Your task to perform on an android device: Add razer kraken to the cart on costco.com Image 0: 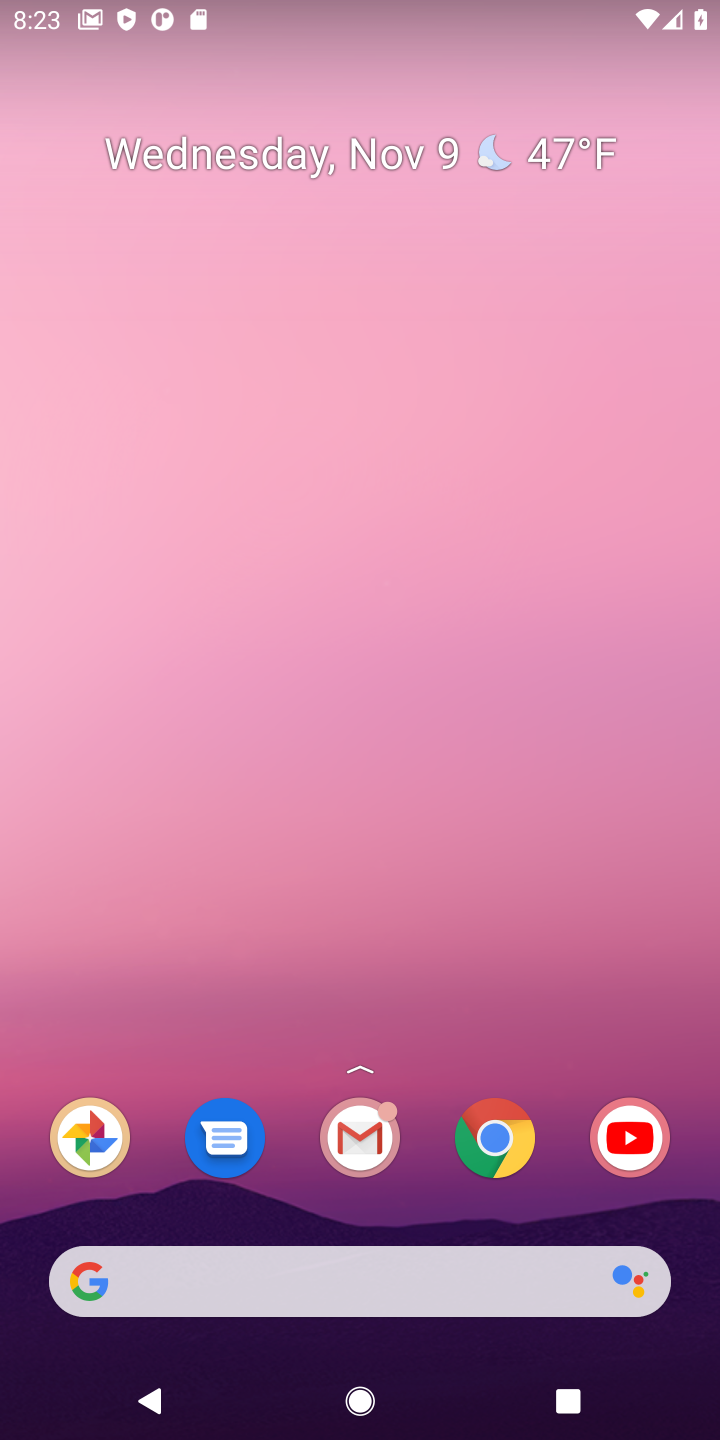
Step 0: drag from (447, 1200) to (316, 150)
Your task to perform on an android device: Add razer kraken to the cart on costco.com Image 1: 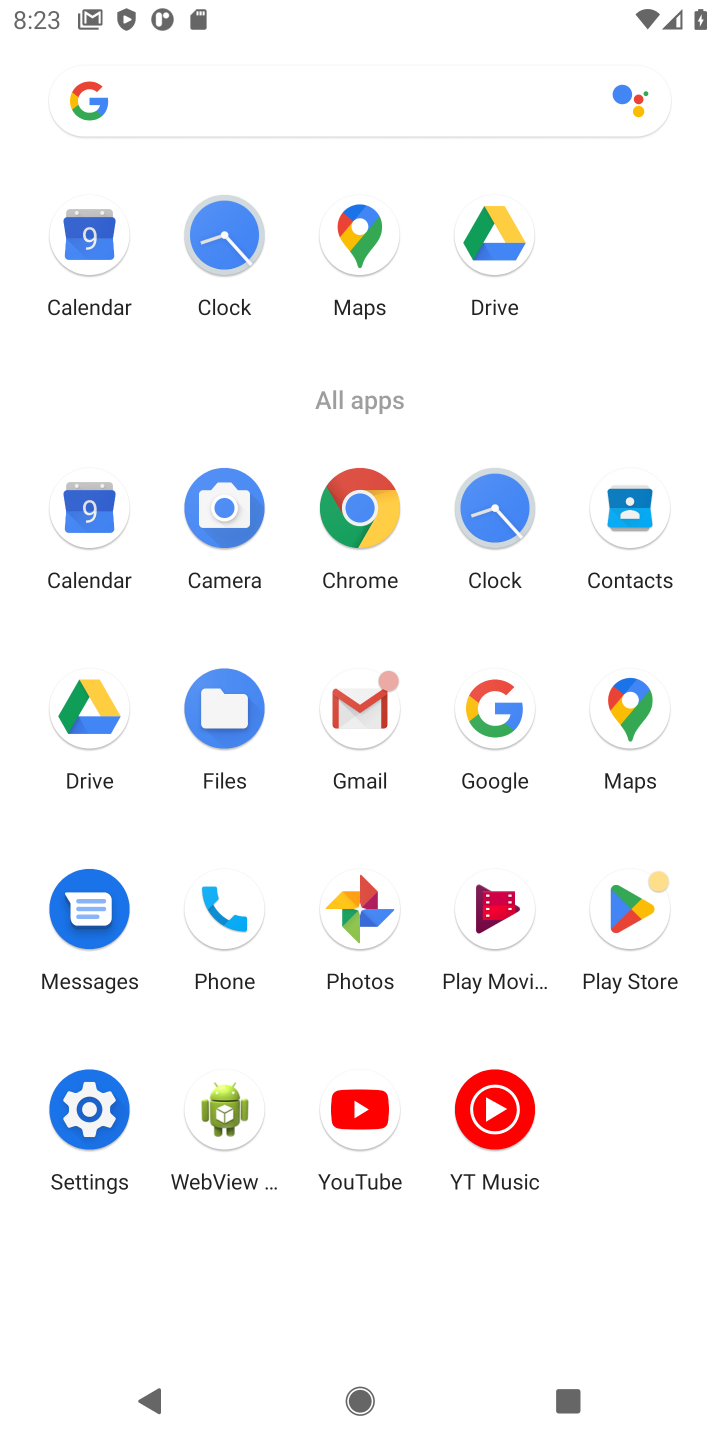
Step 1: click (357, 503)
Your task to perform on an android device: Add razer kraken to the cart on costco.com Image 2: 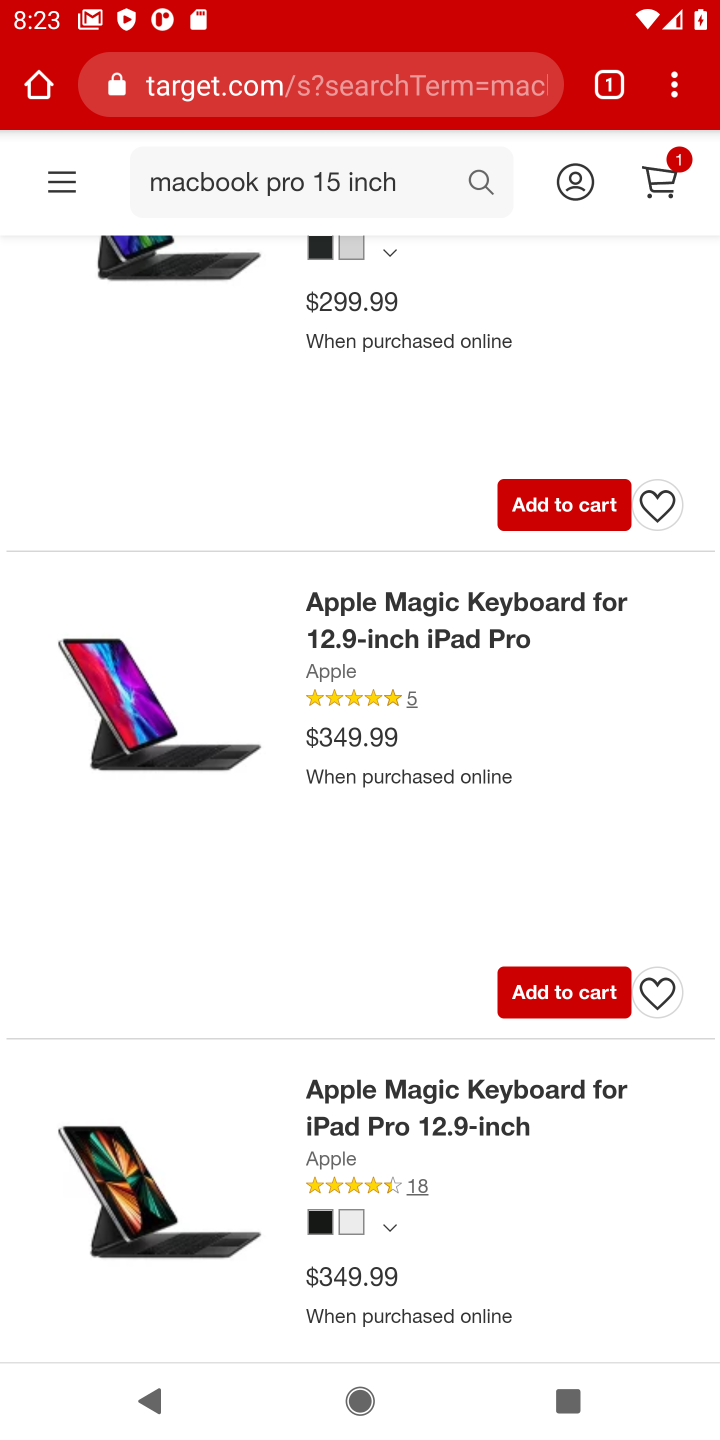
Step 2: click (325, 90)
Your task to perform on an android device: Add razer kraken to the cart on costco.com Image 3: 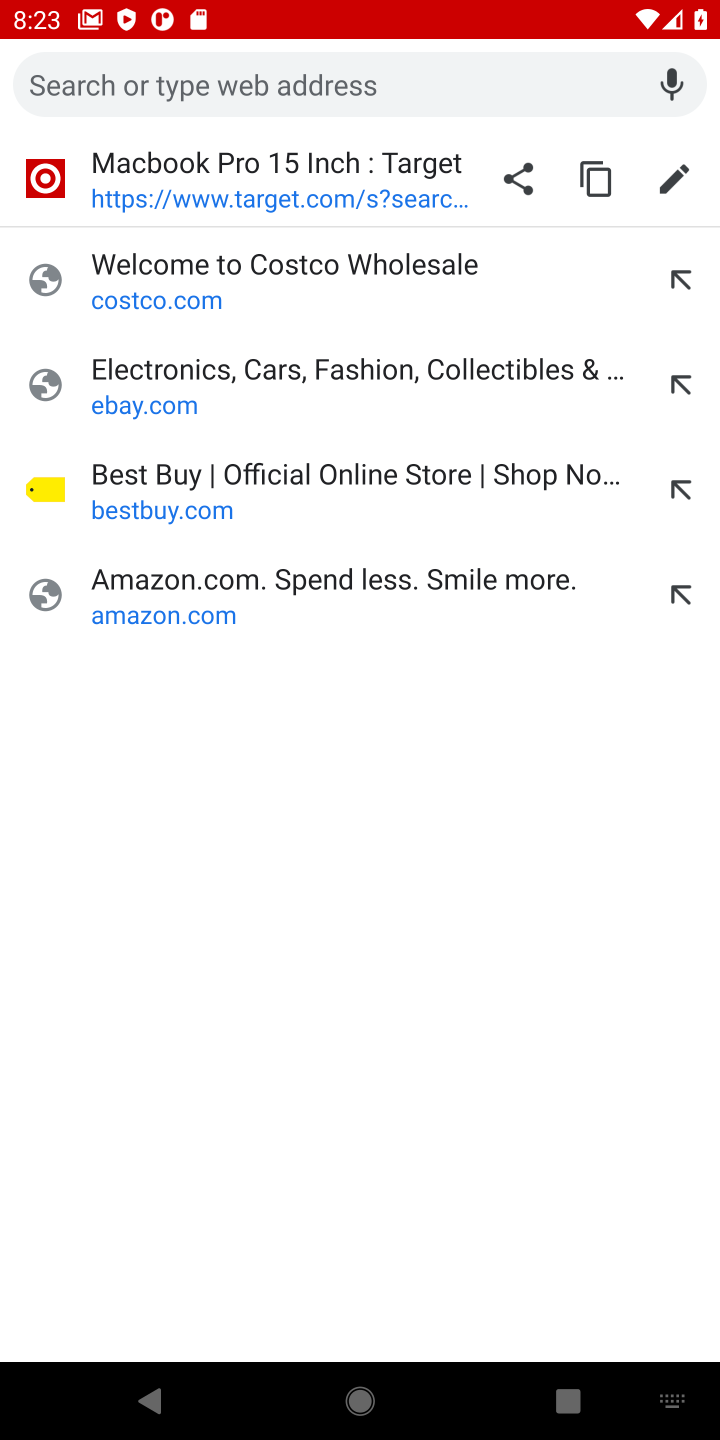
Step 3: type "costco.com"
Your task to perform on an android device: Add razer kraken to the cart on costco.com Image 4: 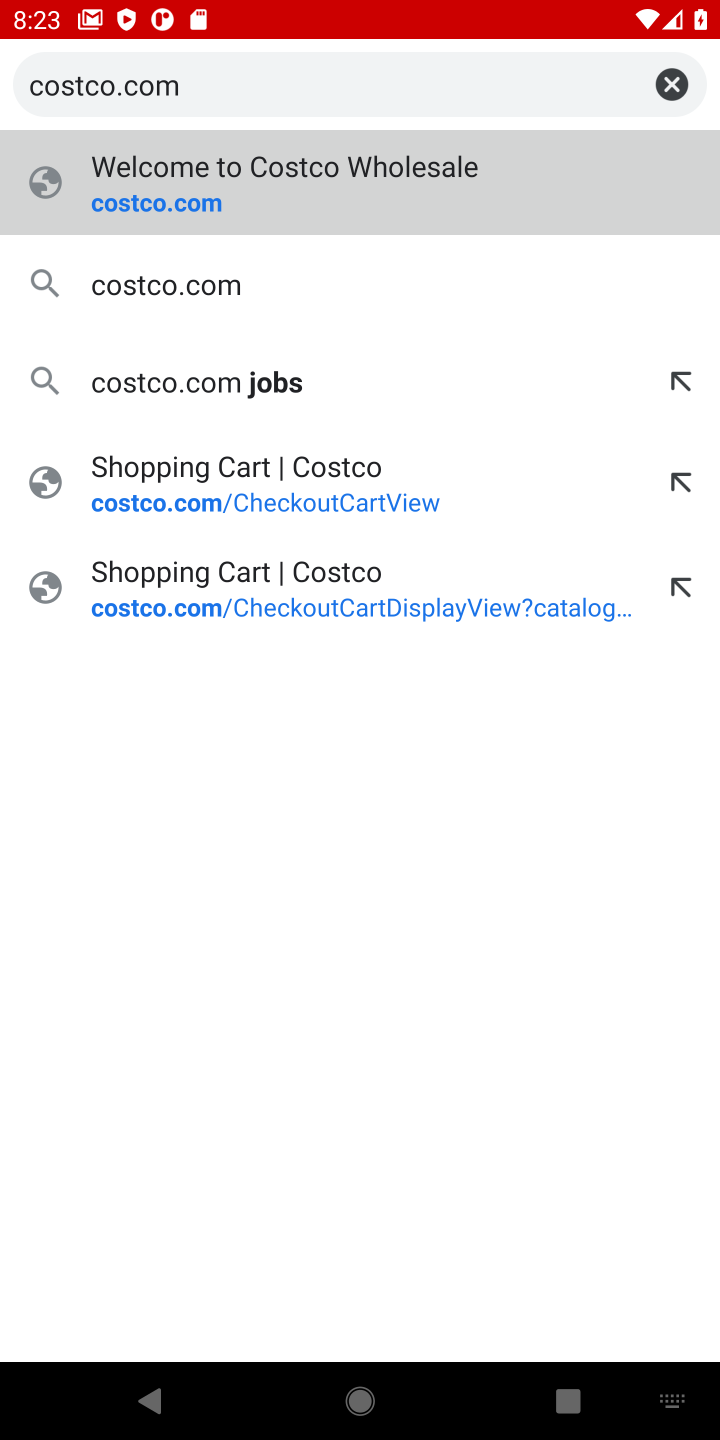
Step 4: press enter
Your task to perform on an android device: Add razer kraken to the cart on costco.com Image 5: 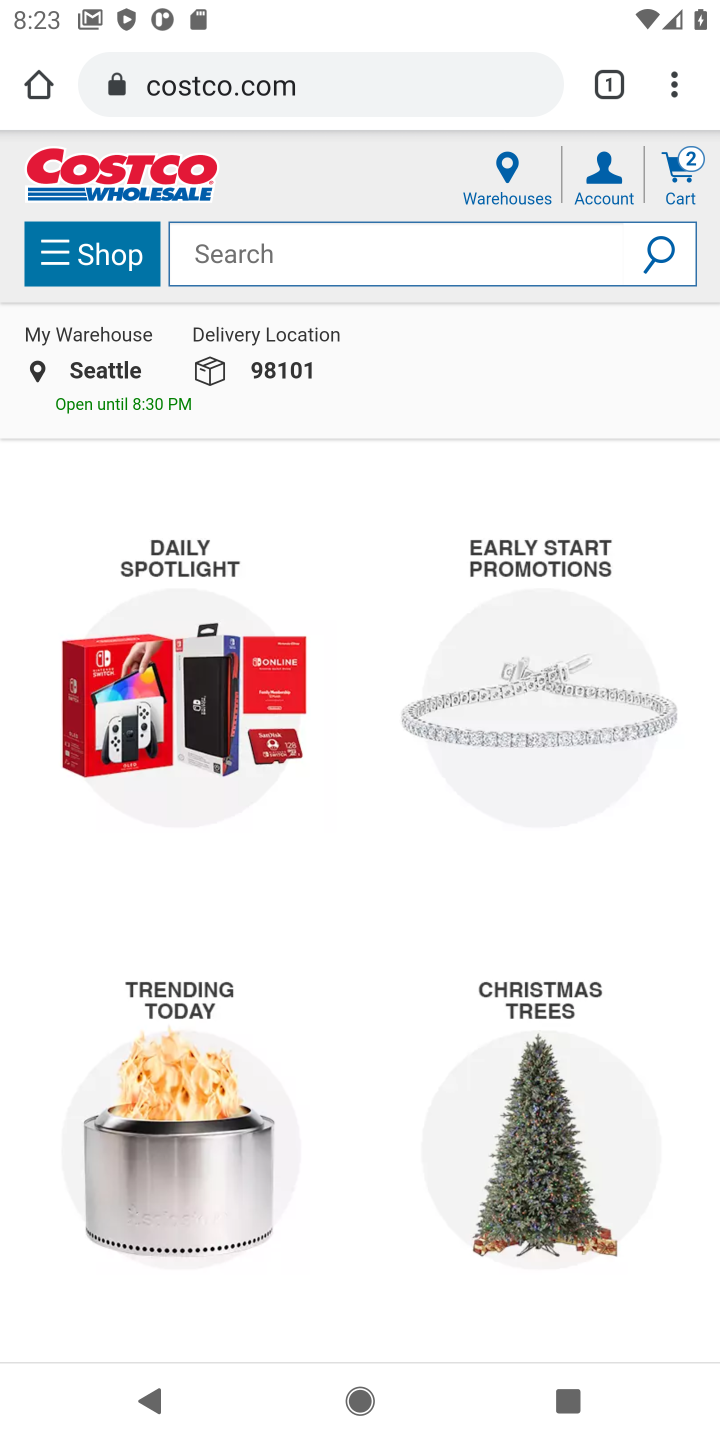
Step 5: click (226, 251)
Your task to perform on an android device: Add razer kraken to the cart on costco.com Image 6: 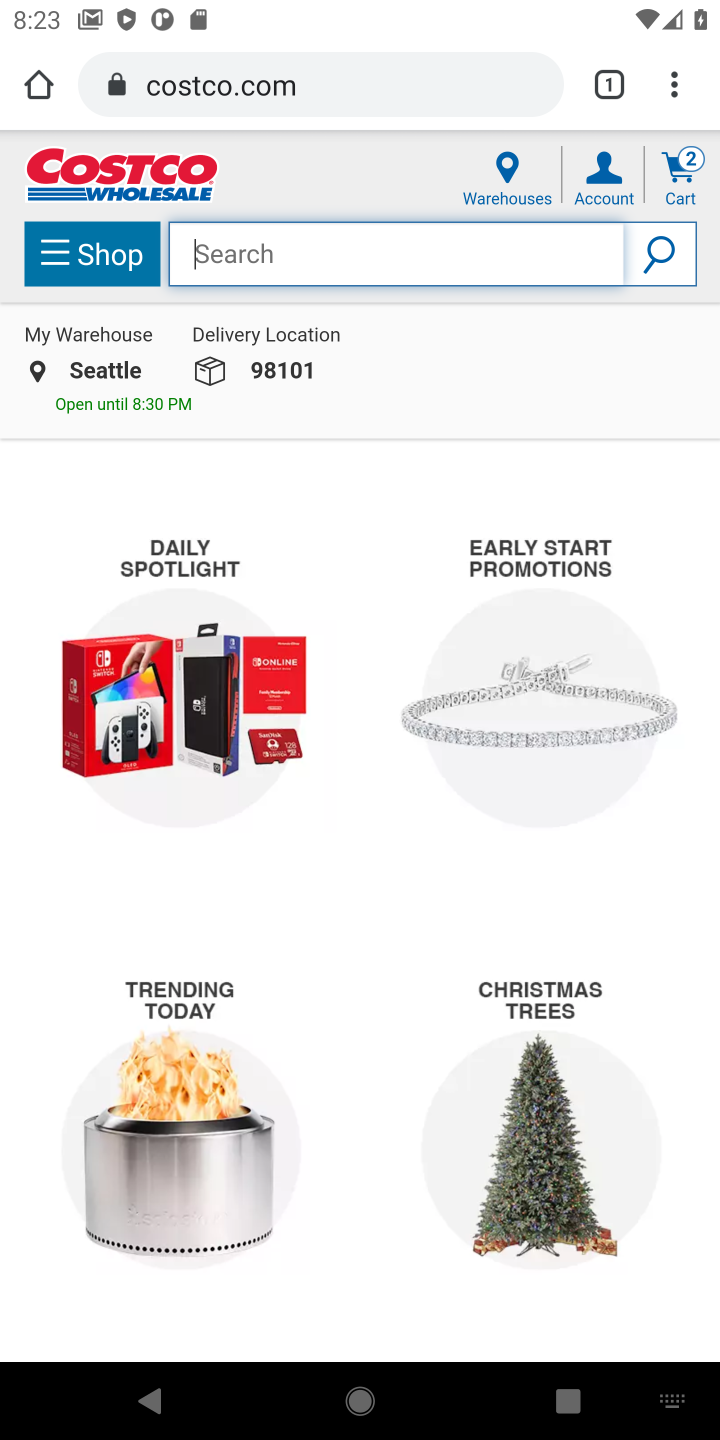
Step 6: type "razer kraken"
Your task to perform on an android device: Add razer kraken to the cart on costco.com Image 7: 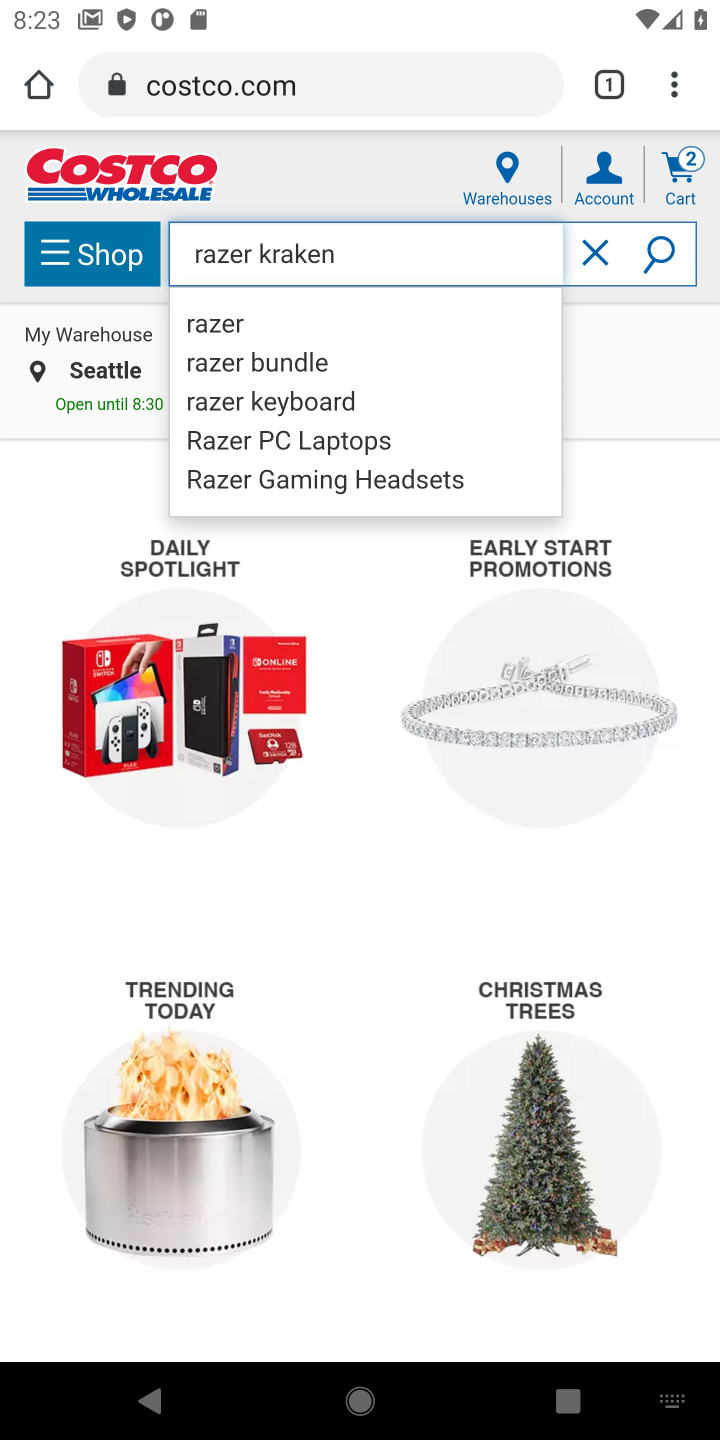
Step 7: press enter
Your task to perform on an android device: Add razer kraken to the cart on costco.com Image 8: 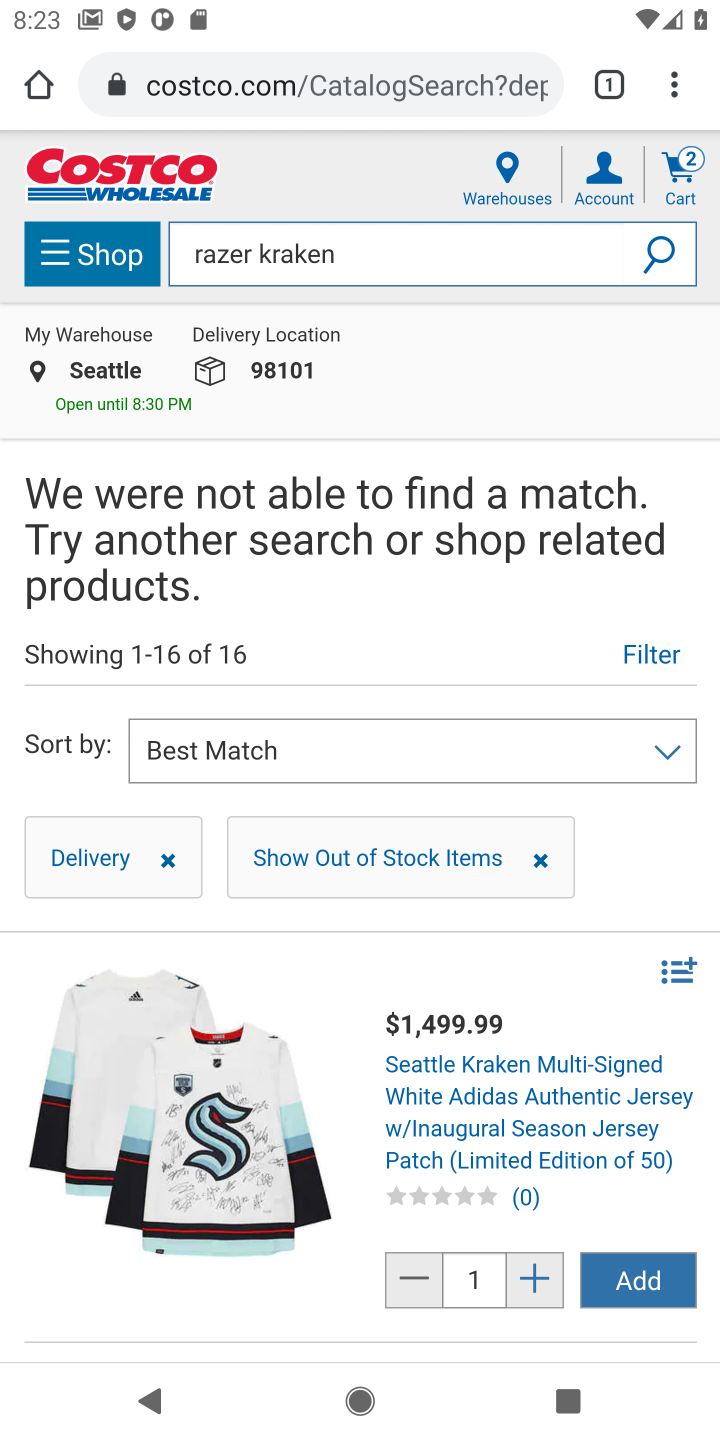
Step 8: task complete